Your task to perform on an android device: Open location settings Image 0: 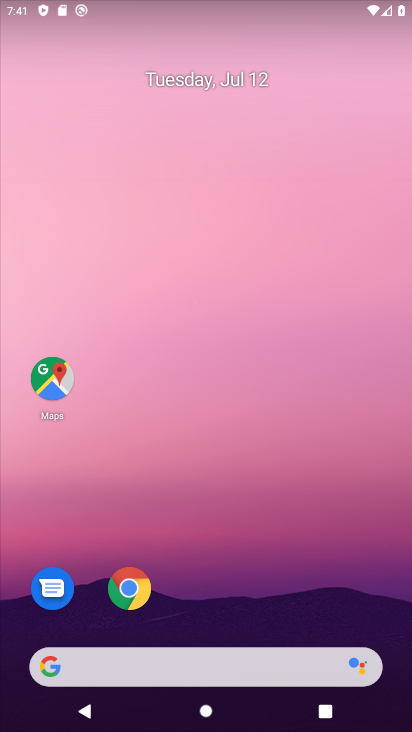
Step 0: drag from (259, 570) to (253, 0)
Your task to perform on an android device: Open location settings Image 1: 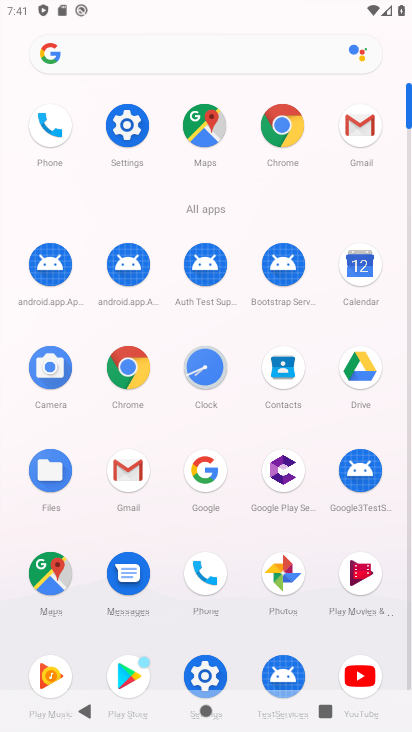
Step 1: click (130, 130)
Your task to perform on an android device: Open location settings Image 2: 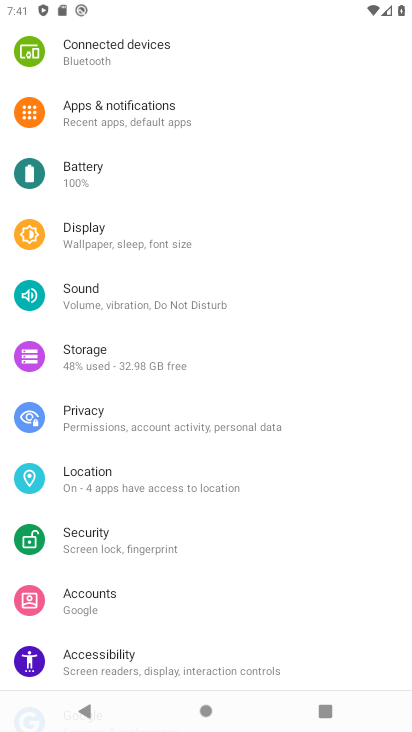
Step 2: click (112, 476)
Your task to perform on an android device: Open location settings Image 3: 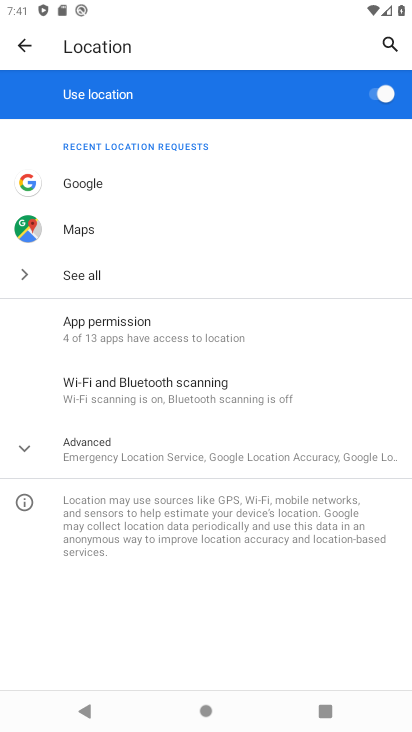
Step 3: task complete